Your task to perform on an android device: find which apps use the phone's location Image 0: 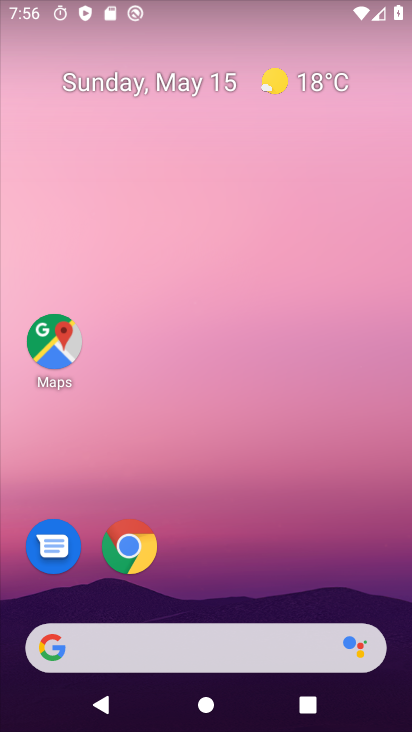
Step 0: drag from (235, 572) to (185, 20)
Your task to perform on an android device: find which apps use the phone's location Image 1: 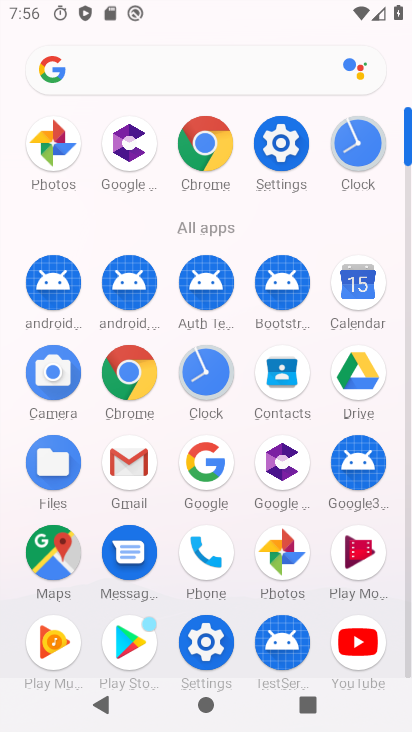
Step 1: click (282, 143)
Your task to perform on an android device: find which apps use the phone's location Image 2: 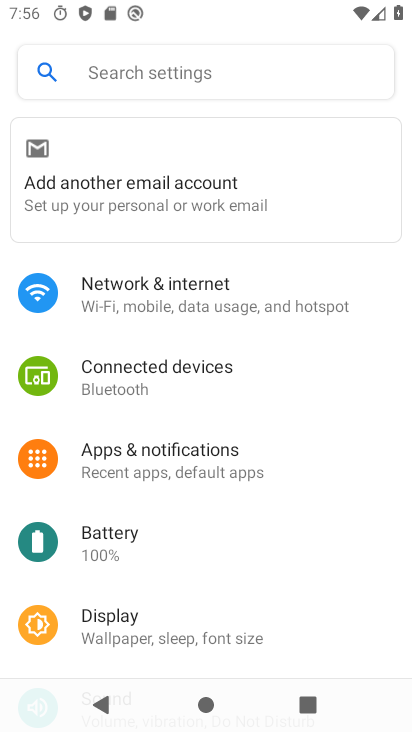
Step 2: drag from (173, 433) to (195, 286)
Your task to perform on an android device: find which apps use the phone's location Image 3: 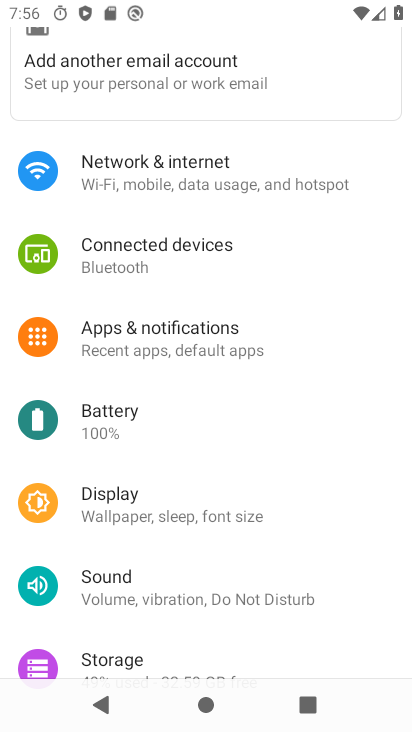
Step 3: drag from (170, 485) to (199, 388)
Your task to perform on an android device: find which apps use the phone's location Image 4: 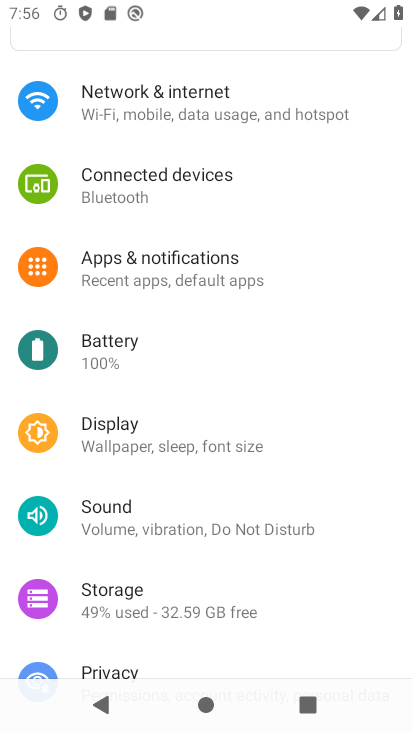
Step 4: drag from (143, 549) to (199, 435)
Your task to perform on an android device: find which apps use the phone's location Image 5: 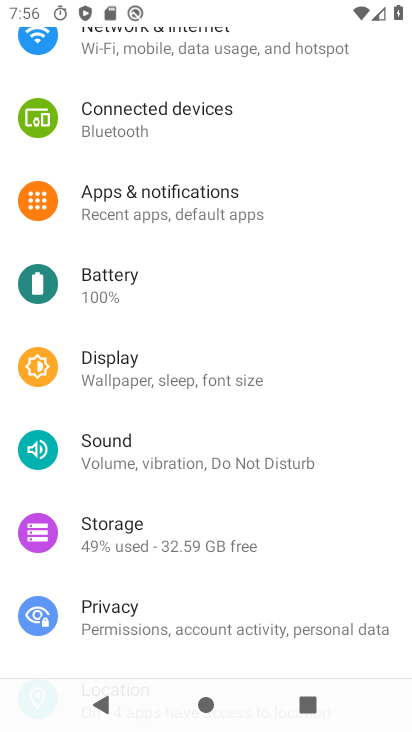
Step 5: drag from (145, 595) to (242, 455)
Your task to perform on an android device: find which apps use the phone's location Image 6: 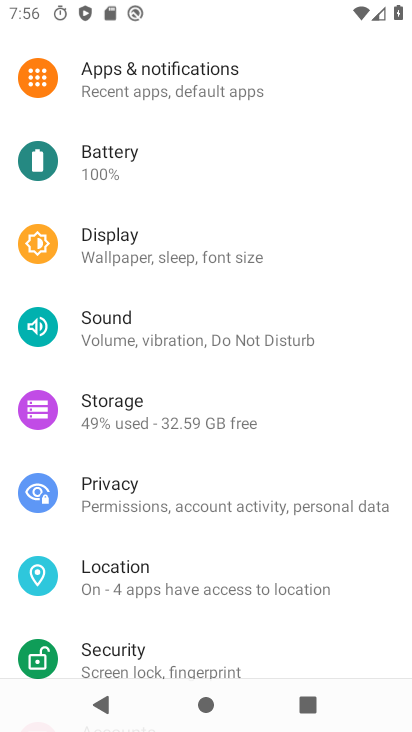
Step 6: click (138, 582)
Your task to perform on an android device: find which apps use the phone's location Image 7: 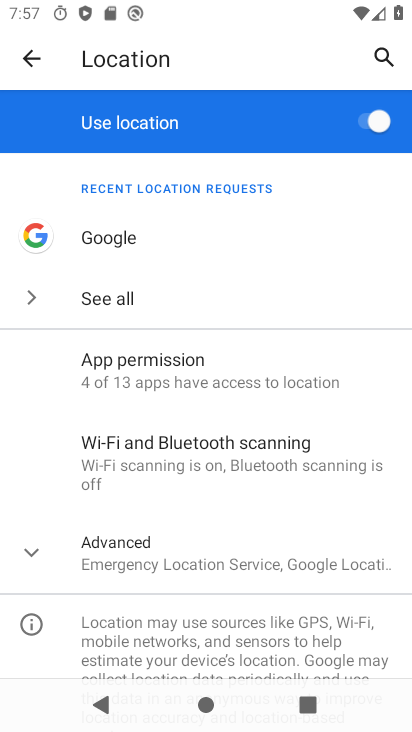
Step 7: click (139, 381)
Your task to perform on an android device: find which apps use the phone's location Image 8: 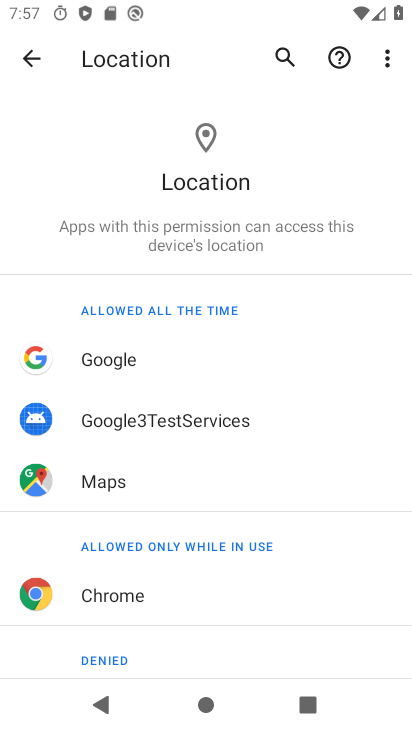
Step 8: click (121, 481)
Your task to perform on an android device: find which apps use the phone's location Image 9: 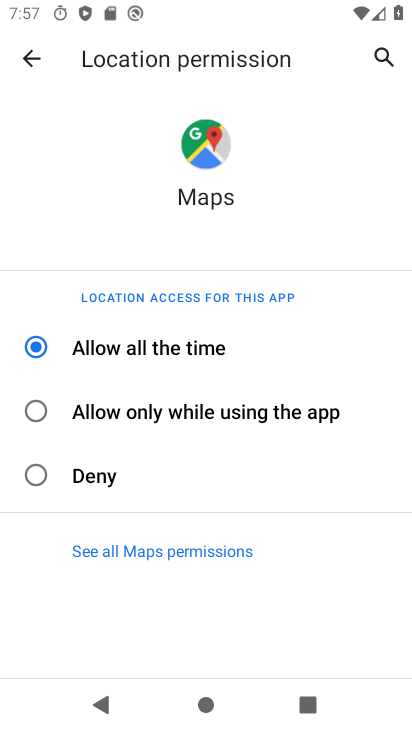
Step 9: task complete